Your task to perform on an android device: turn off data saver in the chrome app Image 0: 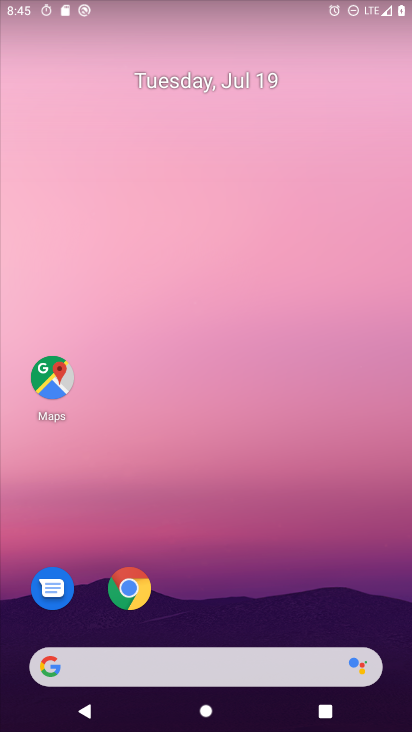
Step 0: drag from (216, 595) to (259, 141)
Your task to perform on an android device: turn off data saver in the chrome app Image 1: 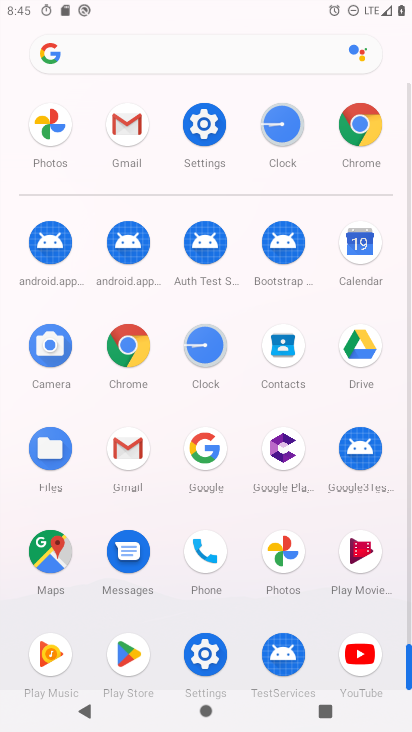
Step 1: click (129, 345)
Your task to perform on an android device: turn off data saver in the chrome app Image 2: 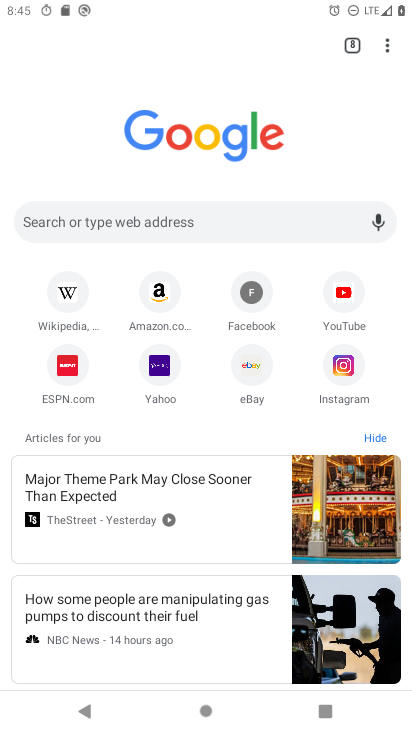
Step 2: click (383, 45)
Your task to perform on an android device: turn off data saver in the chrome app Image 3: 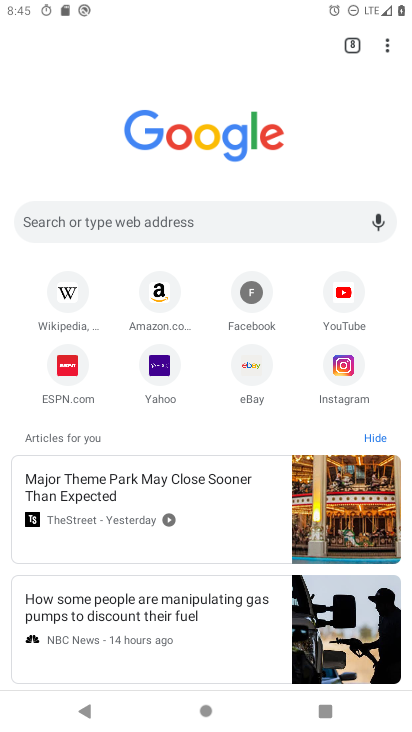
Step 3: click (393, 54)
Your task to perform on an android device: turn off data saver in the chrome app Image 4: 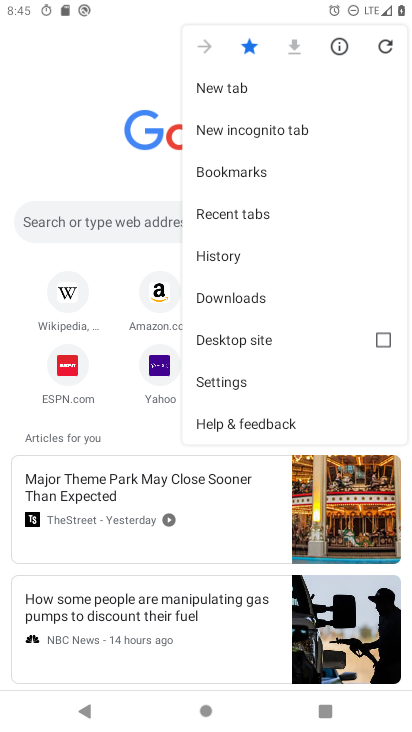
Step 4: click (236, 388)
Your task to perform on an android device: turn off data saver in the chrome app Image 5: 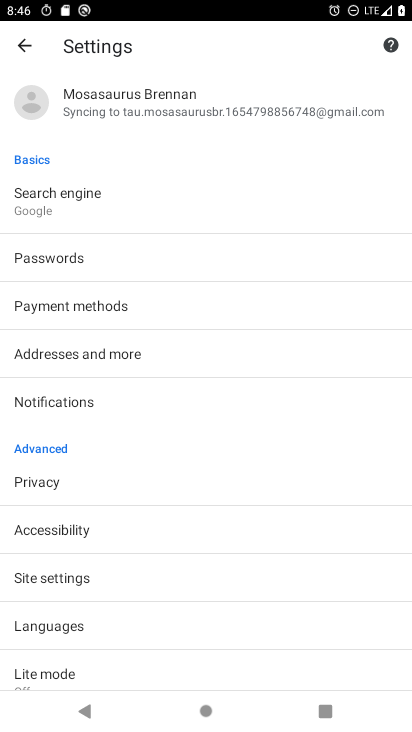
Step 5: task complete